Your task to perform on an android device: Open notification settings Image 0: 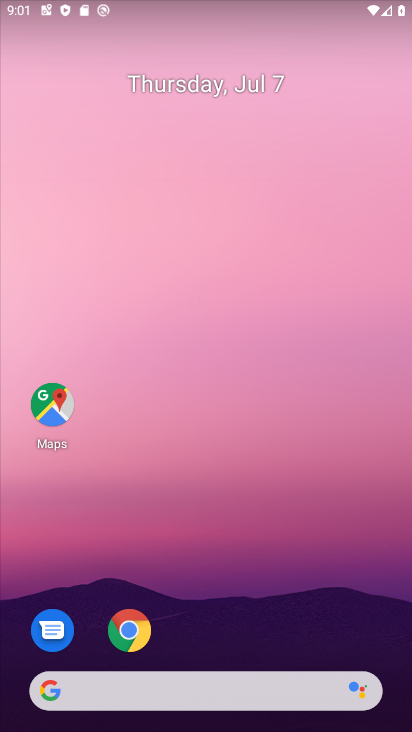
Step 0: drag from (221, 25) to (209, 468)
Your task to perform on an android device: Open notification settings Image 1: 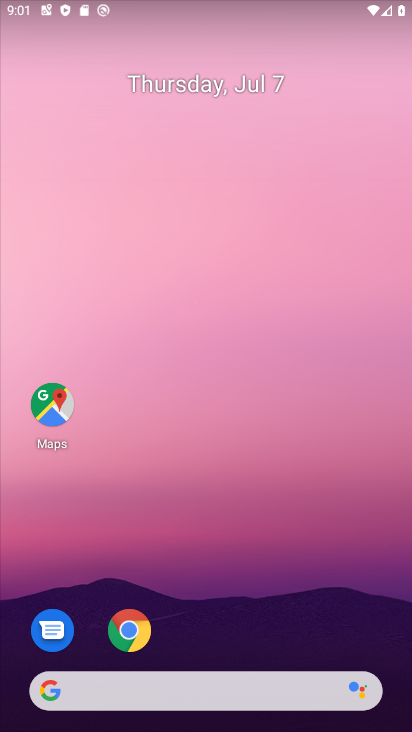
Step 1: drag from (269, 598) to (251, 139)
Your task to perform on an android device: Open notification settings Image 2: 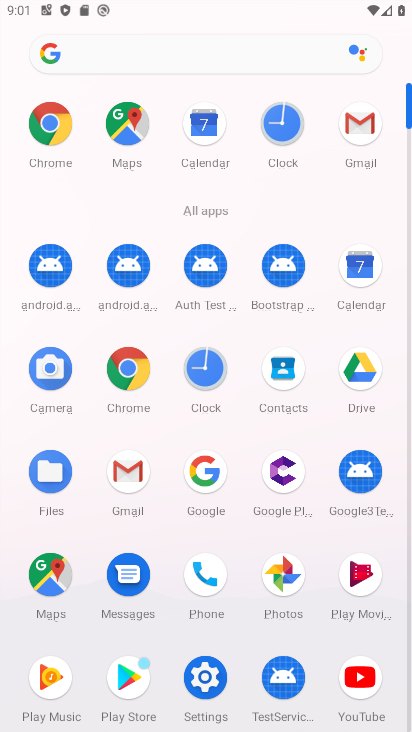
Step 2: click (203, 674)
Your task to perform on an android device: Open notification settings Image 3: 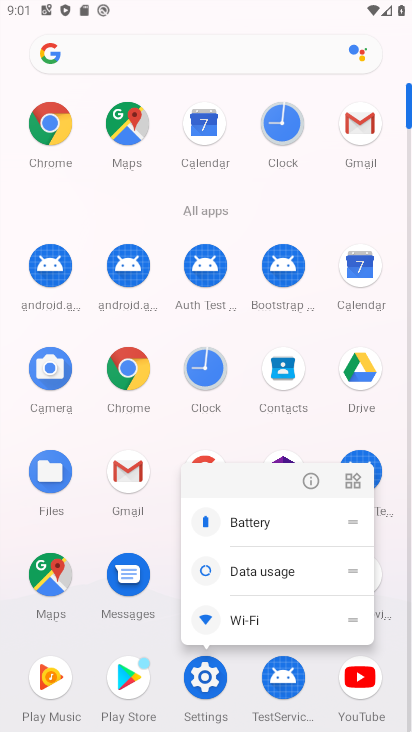
Step 3: click (207, 668)
Your task to perform on an android device: Open notification settings Image 4: 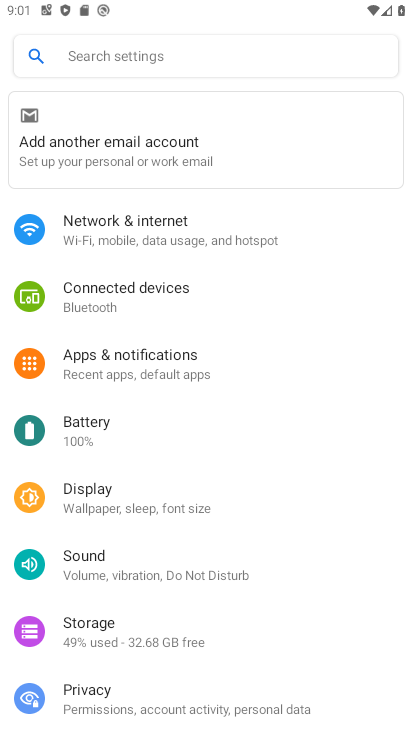
Step 4: click (158, 356)
Your task to perform on an android device: Open notification settings Image 5: 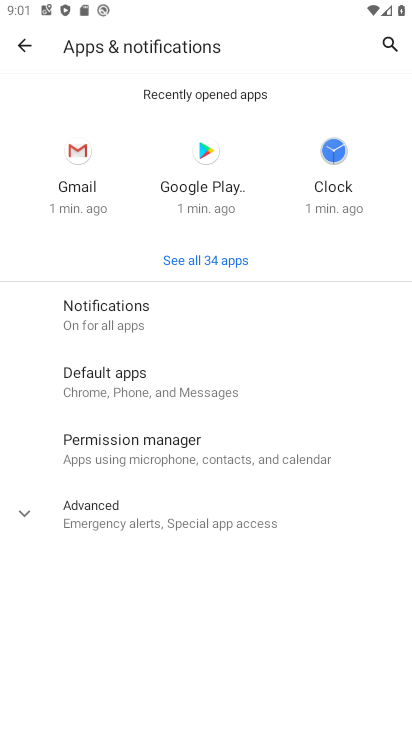
Step 5: click (93, 319)
Your task to perform on an android device: Open notification settings Image 6: 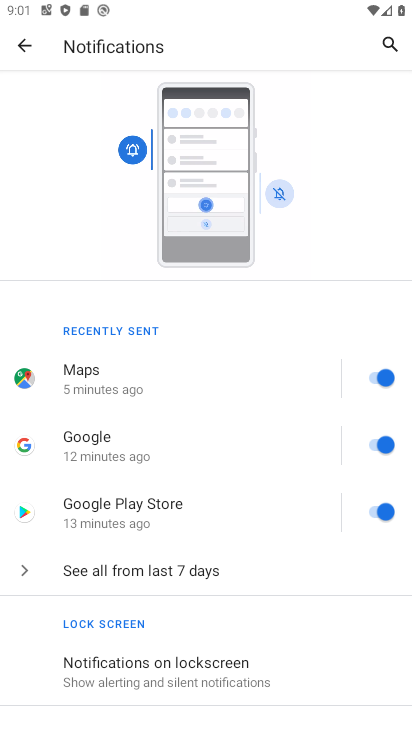
Step 6: task complete